Your task to perform on an android device: Go to ESPN.com Image 0: 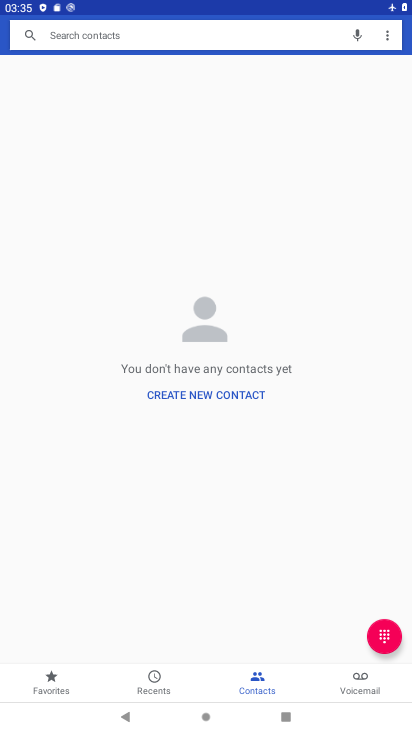
Step 0: press home button
Your task to perform on an android device: Go to ESPN.com Image 1: 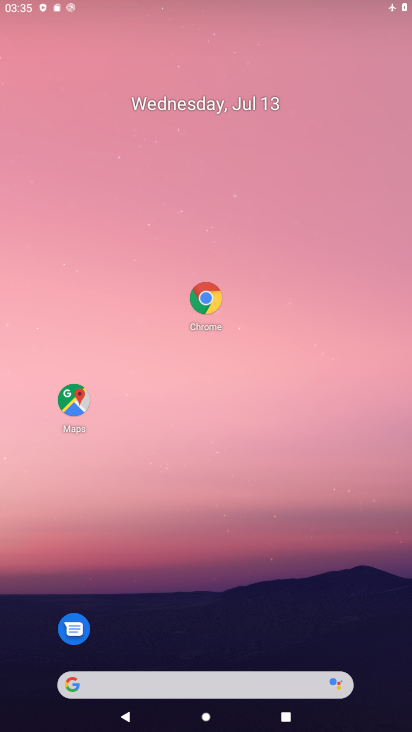
Step 1: drag from (219, 530) to (219, 167)
Your task to perform on an android device: Go to ESPN.com Image 2: 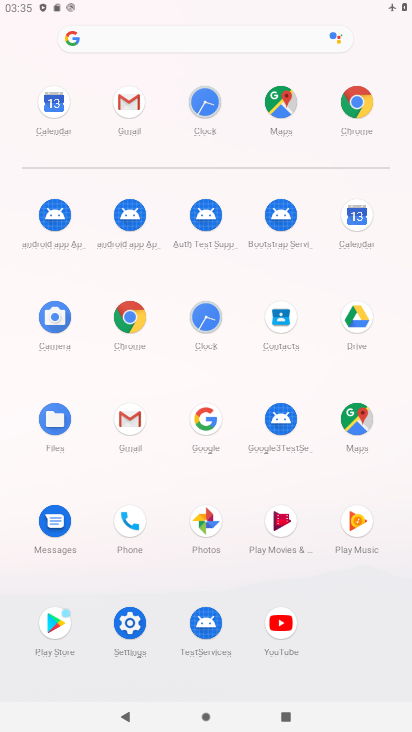
Step 2: click (360, 104)
Your task to perform on an android device: Go to ESPN.com Image 3: 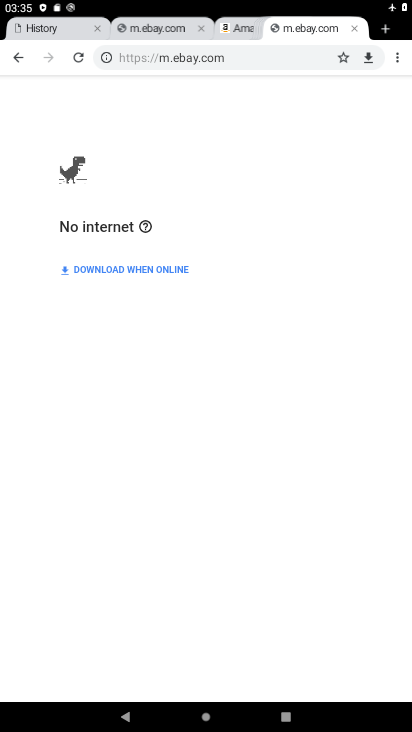
Step 3: click (390, 30)
Your task to perform on an android device: Go to ESPN.com Image 4: 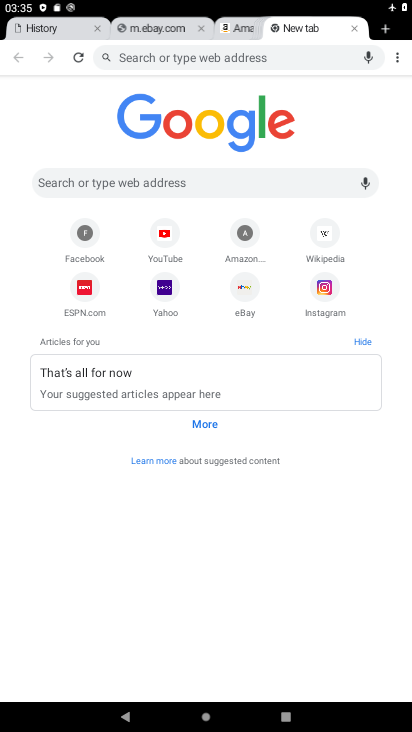
Step 4: click (84, 308)
Your task to perform on an android device: Go to ESPN.com Image 5: 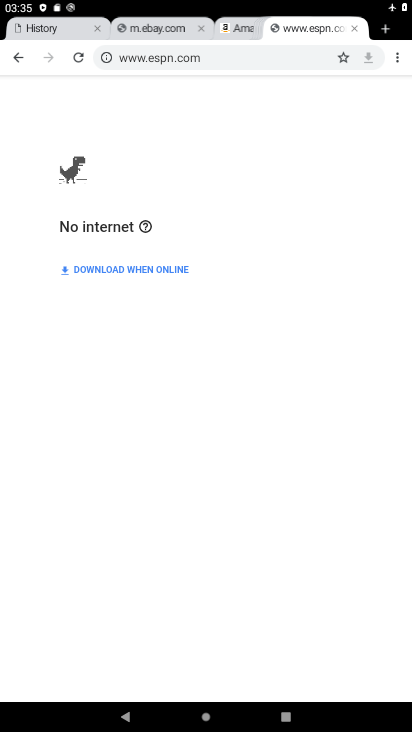
Step 5: task complete